Your task to perform on an android device: Go to Reddit.com Image 0: 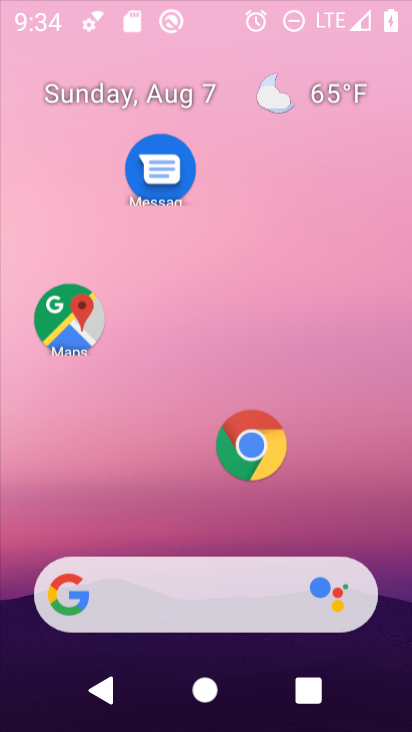
Step 0: press home button
Your task to perform on an android device: Go to Reddit.com Image 1: 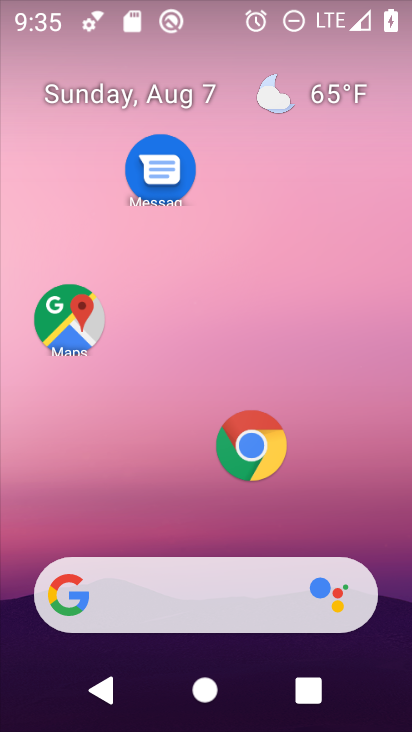
Step 1: click (248, 439)
Your task to perform on an android device: Go to Reddit.com Image 2: 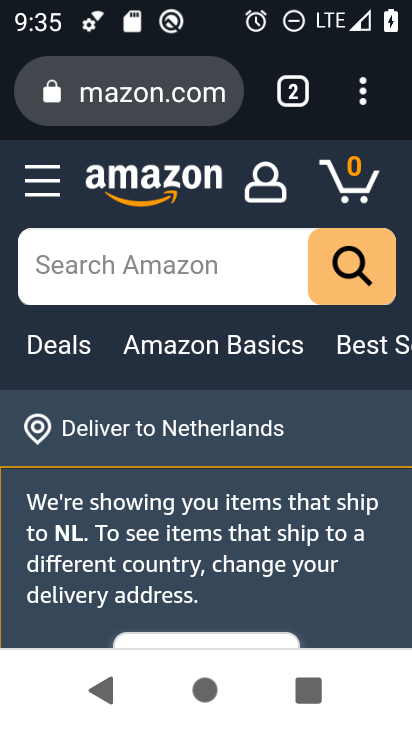
Step 2: click (297, 91)
Your task to perform on an android device: Go to Reddit.com Image 3: 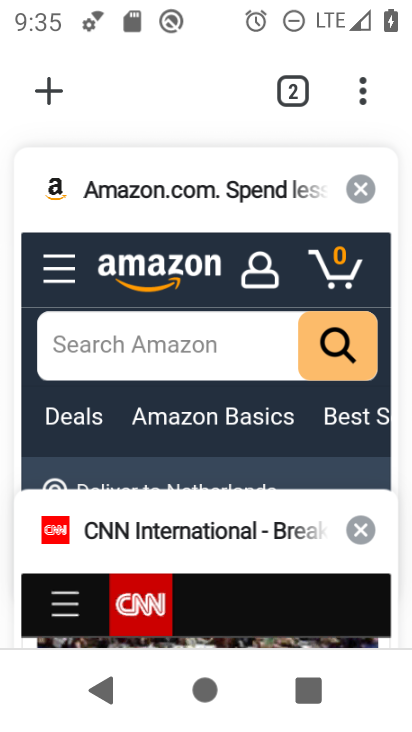
Step 3: click (48, 93)
Your task to perform on an android device: Go to Reddit.com Image 4: 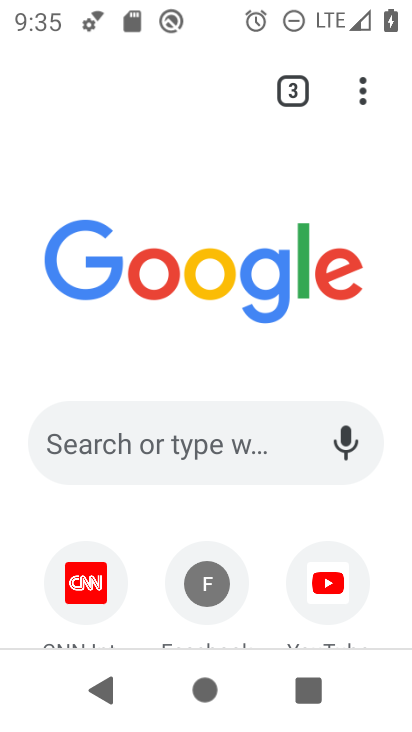
Step 4: click (197, 436)
Your task to perform on an android device: Go to Reddit.com Image 5: 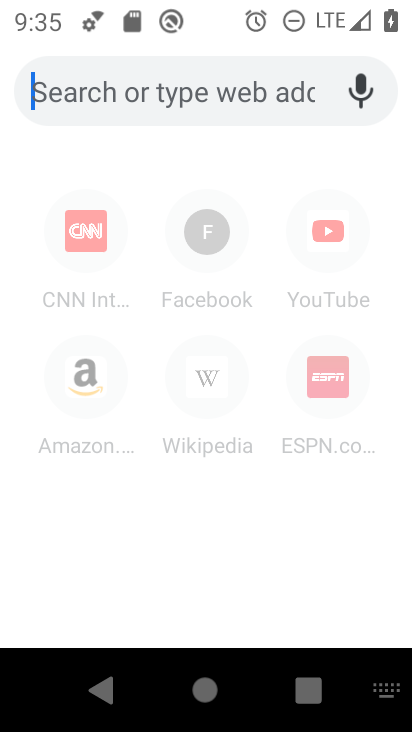
Step 5: type "reddit.com"
Your task to perform on an android device: Go to Reddit.com Image 6: 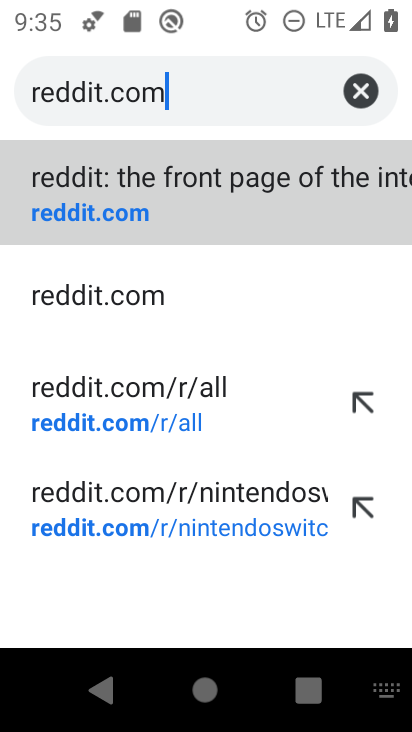
Step 6: click (168, 202)
Your task to perform on an android device: Go to Reddit.com Image 7: 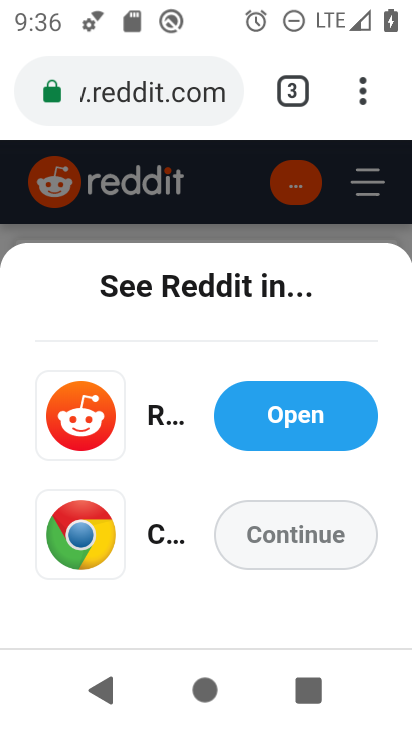
Step 7: click (294, 524)
Your task to perform on an android device: Go to Reddit.com Image 8: 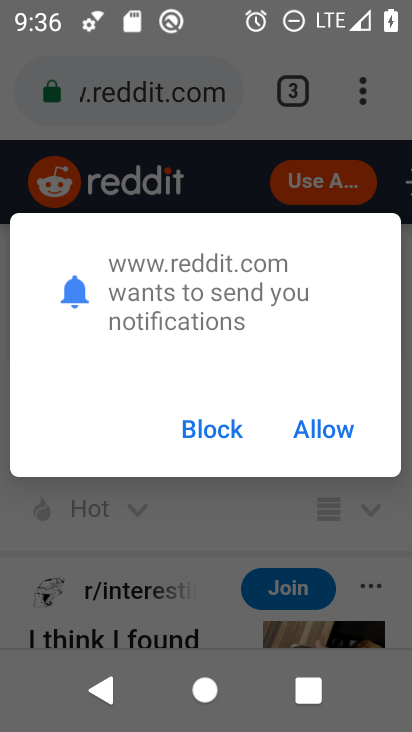
Step 8: click (318, 422)
Your task to perform on an android device: Go to Reddit.com Image 9: 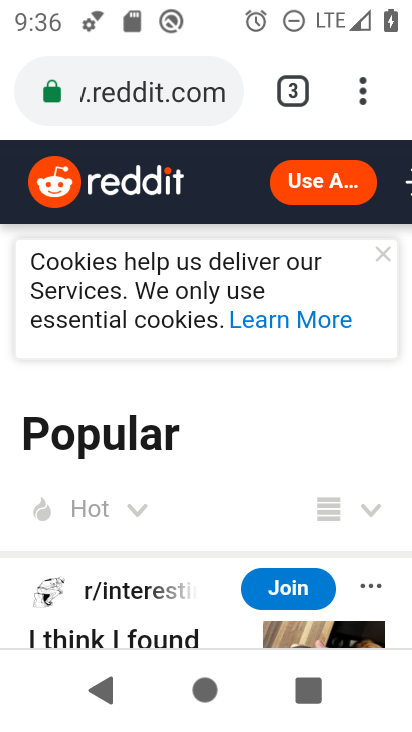
Step 9: task complete